Your task to perform on an android device: turn pop-ups off in chrome Image 0: 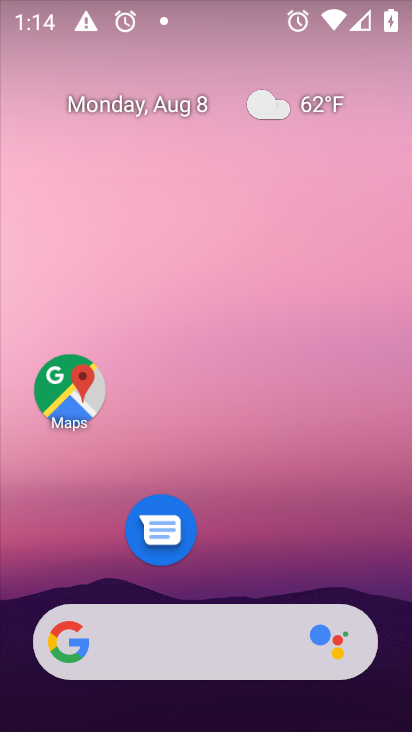
Step 0: drag from (246, 546) to (245, 133)
Your task to perform on an android device: turn pop-ups off in chrome Image 1: 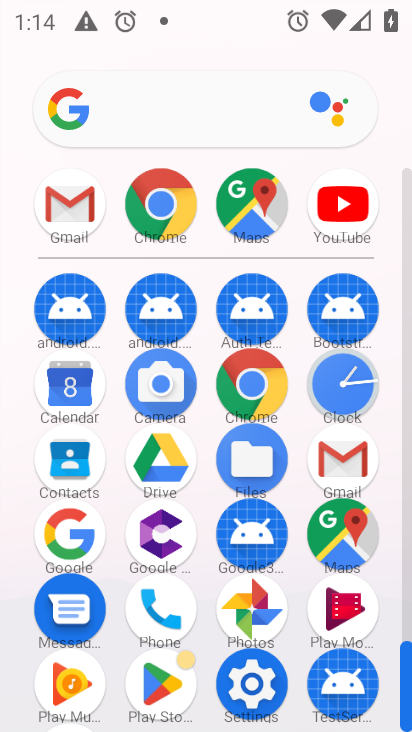
Step 1: click (256, 381)
Your task to perform on an android device: turn pop-ups off in chrome Image 2: 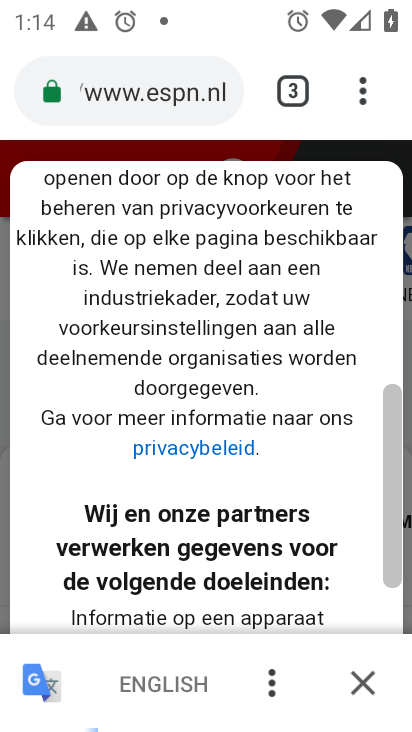
Step 2: drag from (365, 95) to (278, 532)
Your task to perform on an android device: turn pop-ups off in chrome Image 3: 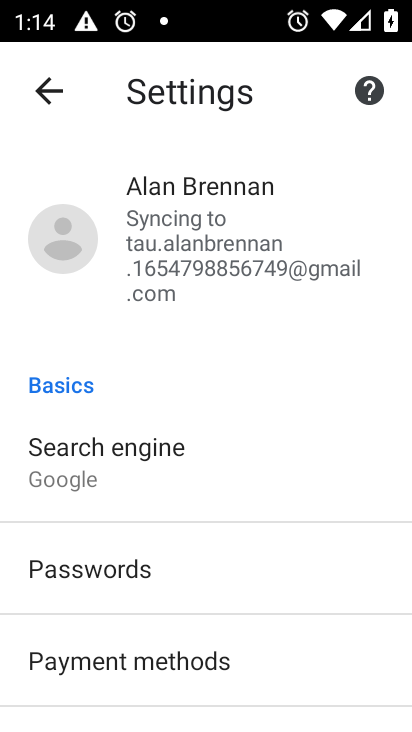
Step 3: drag from (181, 650) to (181, 388)
Your task to perform on an android device: turn pop-ups off in chrome Image 4: 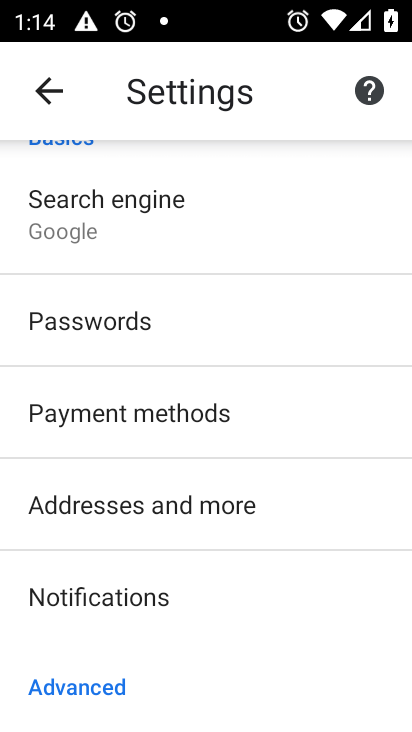
Step 4: drag from (130, 681) to (130, 440)
Your task to perform on an android device: turn pop-ups off in chrome Image 5: 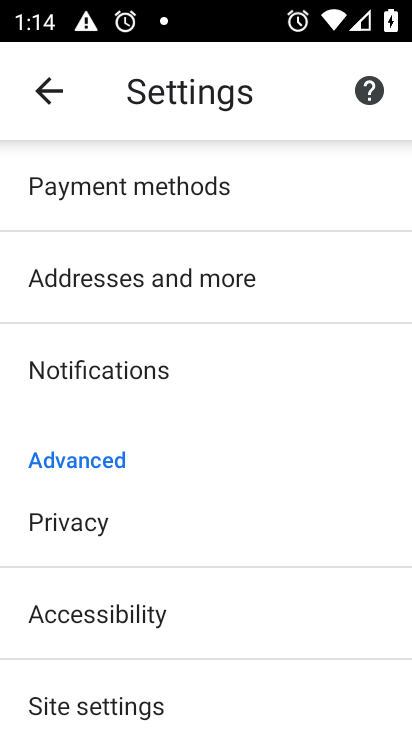
Step 5: click (144, 701)
Your task to perform on an android device: turn pop-ups off in chrome Image 6: 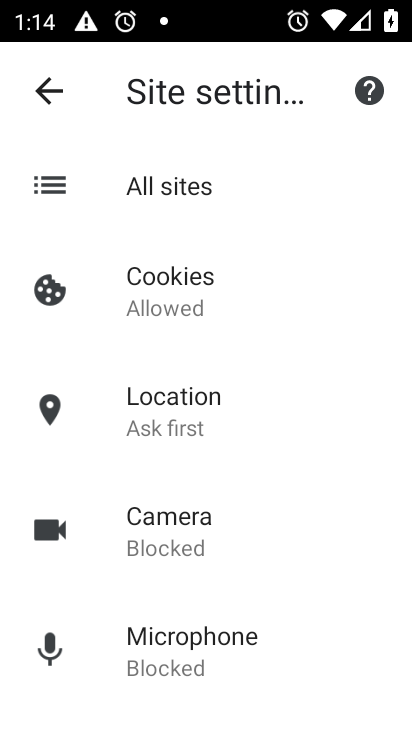
Step 6: drag from (187, 677) to (199, 378)
Your task to perform on an android device: turn pop-ups off in chrome Image 7: 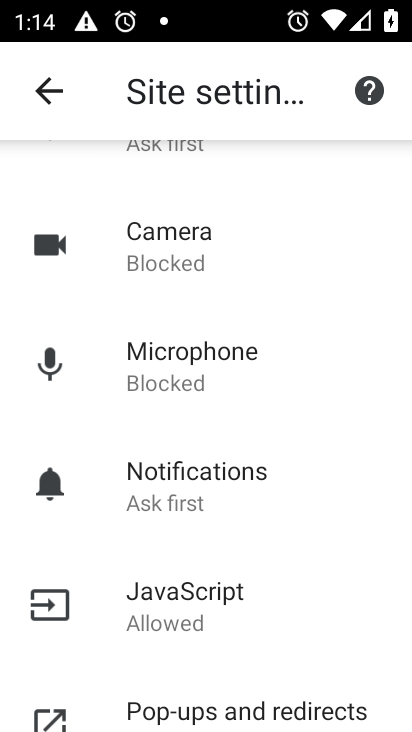
Step 7: drag from (157, 677) to (161, 425)
Your task to perform on an android device: turn pop-ups off in chrome Image 8: 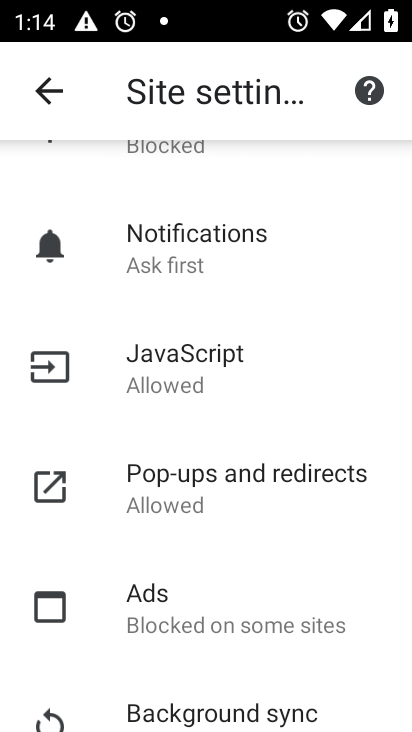
Step 8: click (170, 488)
Your task to perform on an android device: turn pop-ups off in chrome Image 9: 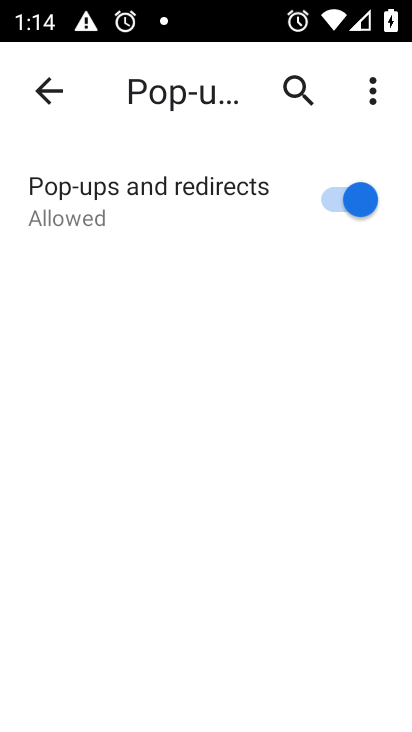
Step 9: click (343, 203)
Your task to perform on an android device: turn pop-ups off in chrome Image 10: 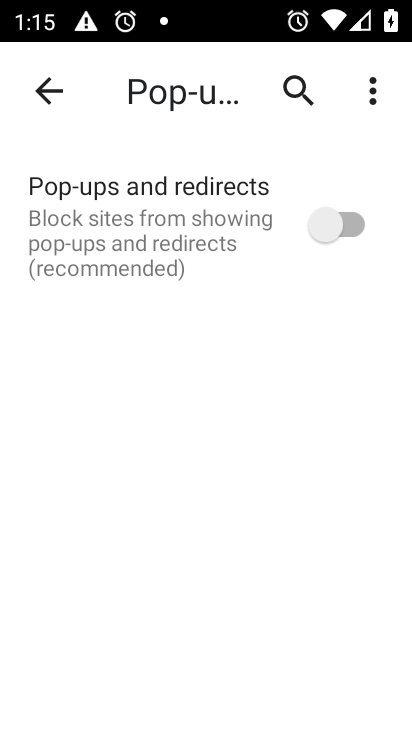
Step 10: task complete